Your task to perform on an android device: toggle location history Image 0: 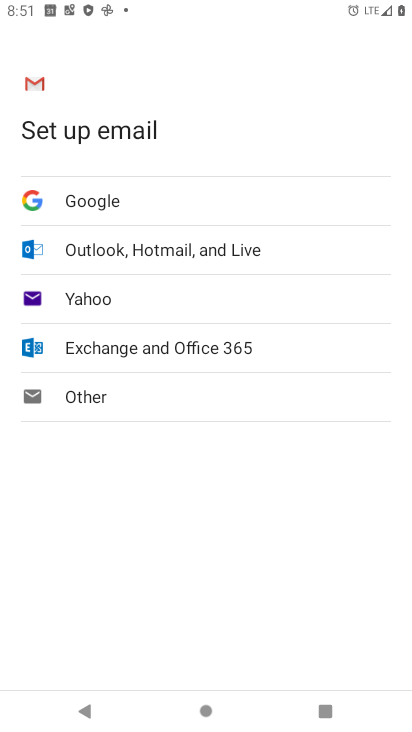
Step 0: press home button
Your task to perform on an android device: toggle location history Image 1: 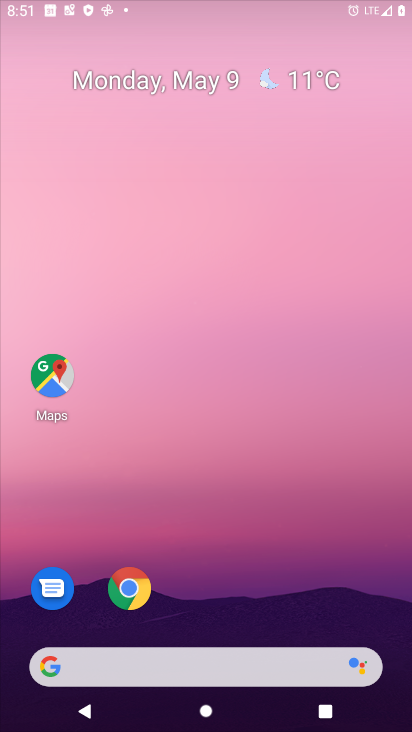
Step 1: drag from (331, 611) to (332, 48)
Your task to perform on an android device: toggle location history Image 2: 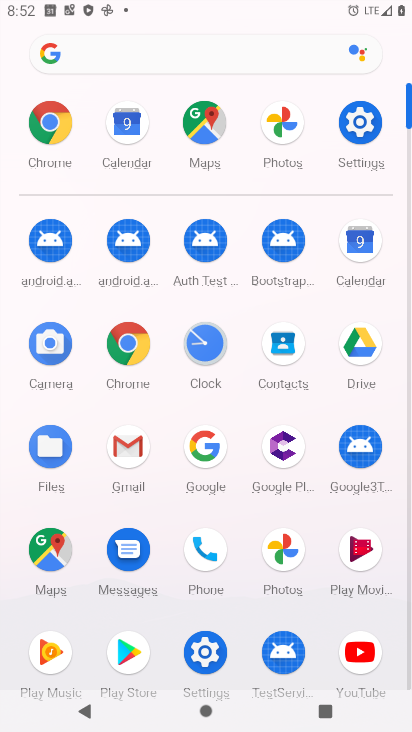
Step 2: click (195, 636)
Your task to perform on an android device: toggle location history Image 3: 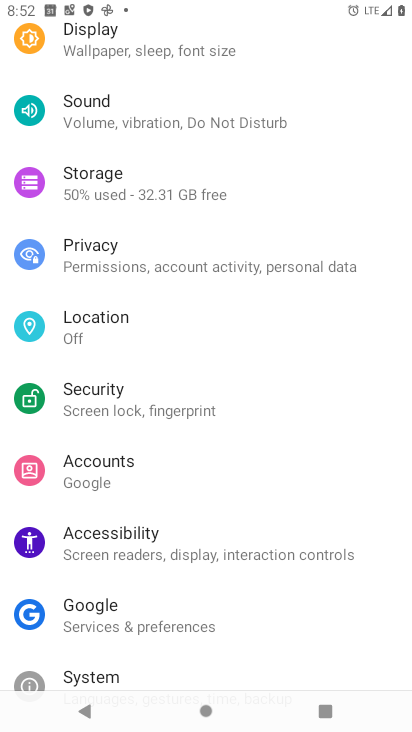
Step 3: click (130, 328)
Your task to perform on an android device: toggle location history Image 4: 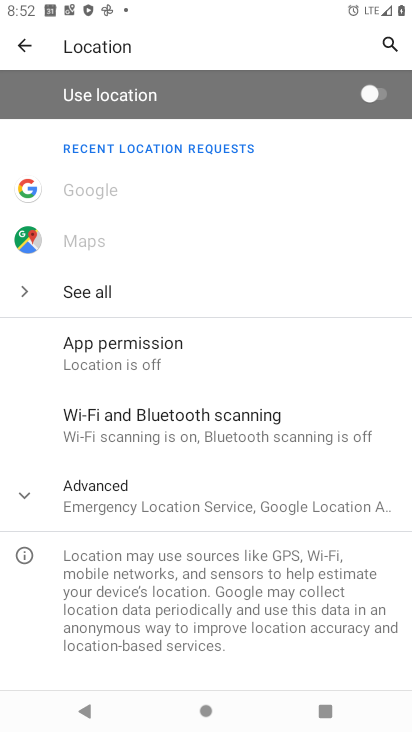
Step 4: click (34, 509)
Your task to perform on an android device: toggle location history Image 5: 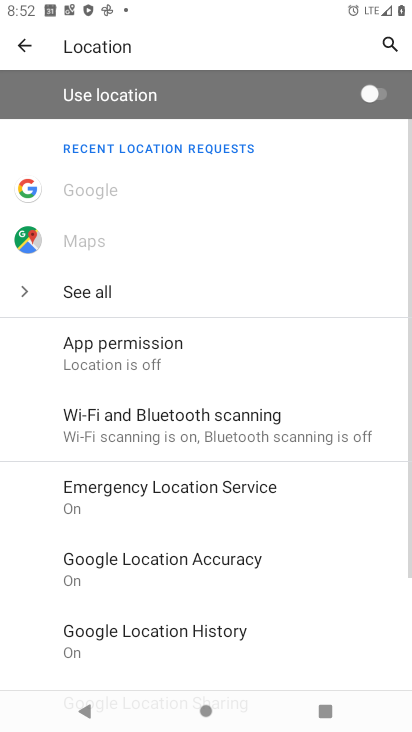
Step 5: click (213, 638)
Your task to perform on an android device: toggle location history Image 6: 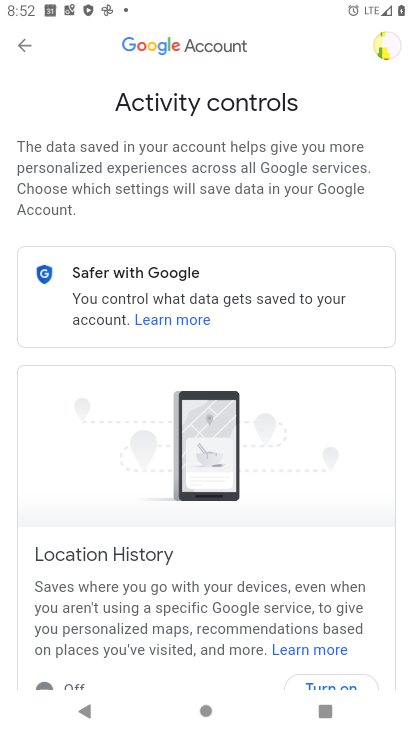
Step 6: drag from (244, 531) to (165, 157)
Your task to perform on an android device: toggle location history Image 7: 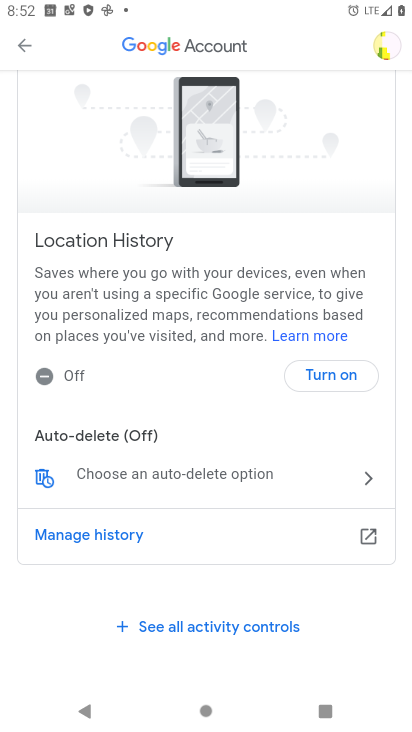
Step 7: click (328, 377)
Your task to perform on an android device: toggle location history Image 8: 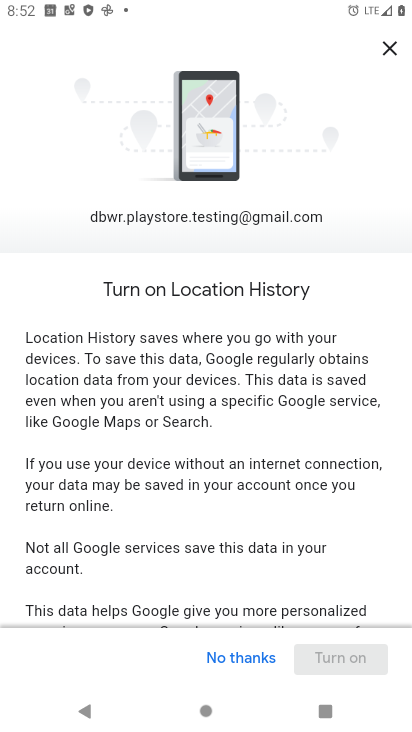
Step 8: task complete